Your task to perform on an android device: Go to display settings Image 0: 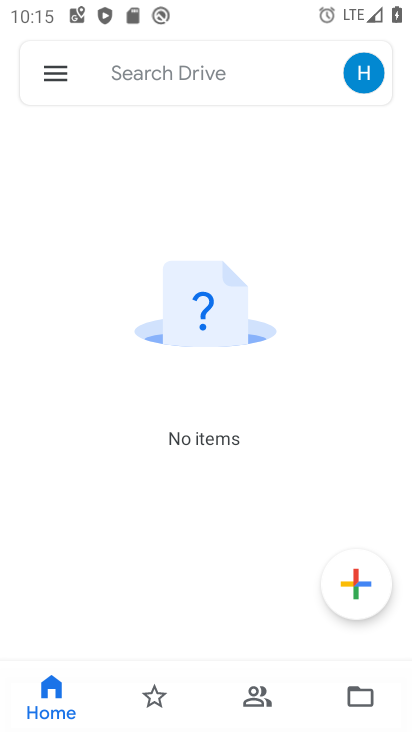
Step 0: press home button
Your task to perform on an android device: Go to display settings Image 1: 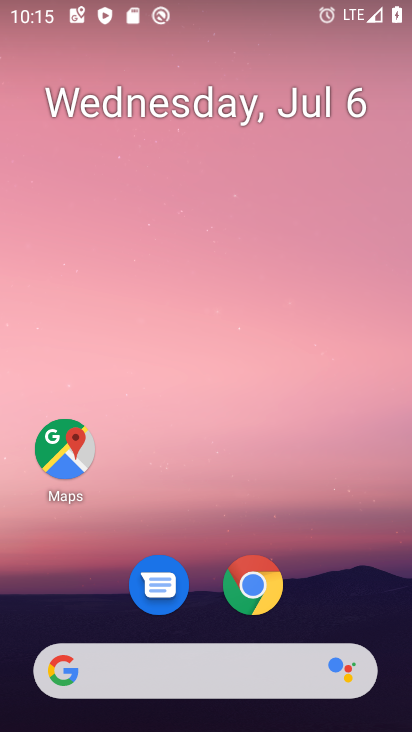
Step 1: drag from (216, 510) to (268, 32)
Your task to perform on an android device: Go to display settings Image 2: 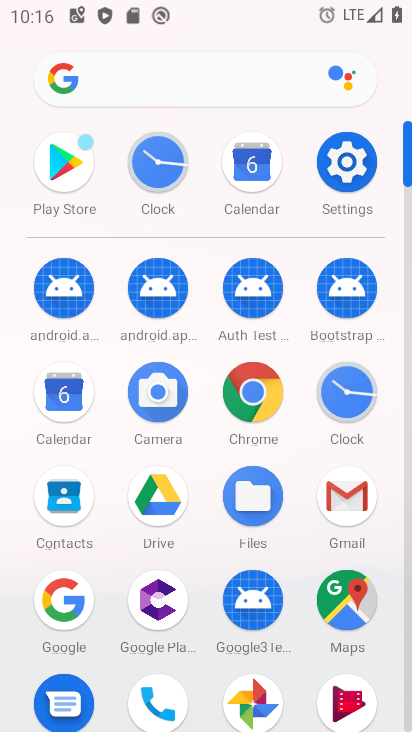
Step 2: click (356, 164)
Your task to perform on an android device: Go to display settings Image 3: 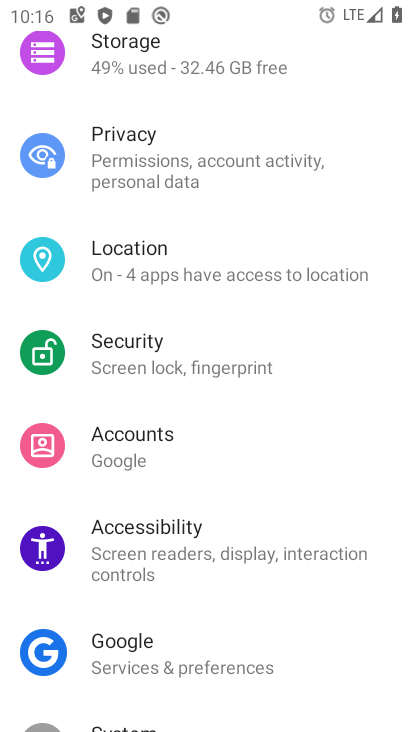
Step 3: drag from (250, 402) to (228, 629)
Your task to perform on an android device: Go to display settings Image 4: 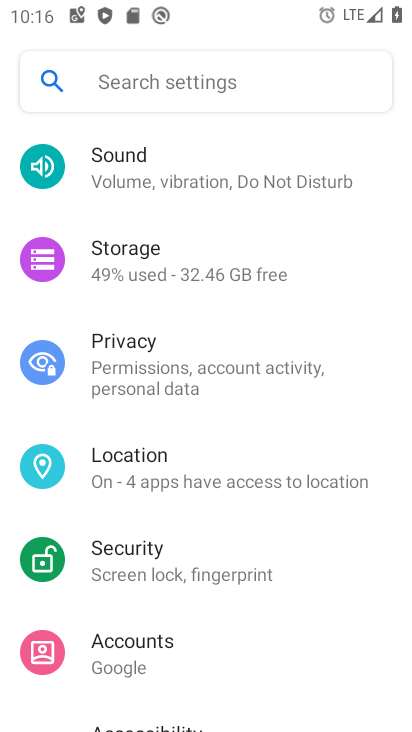
Step 4: drag from (229, 348) to (218, 602)
Your task to perform on an android device: Go to display settings Image 5: 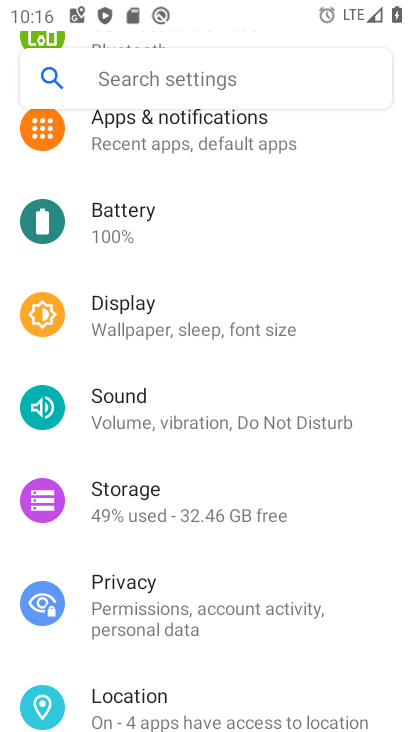
Step 5: click (217, 307)
Your task to perform on an android device: Go to display settings Image 6: 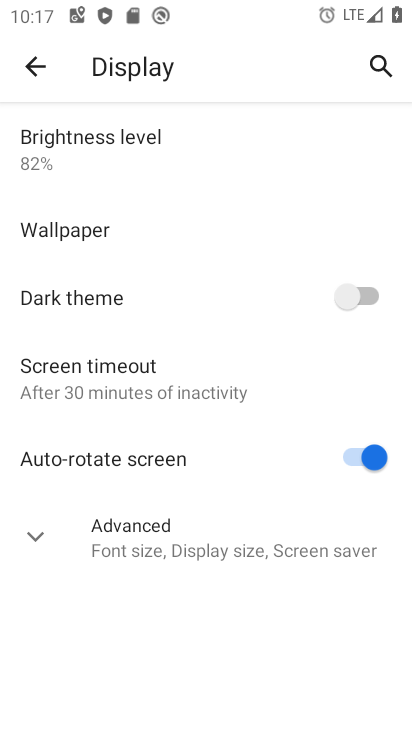
Step 6: task complete